Your task to perform on an android device: open chrome and create a bookmark for the current page Image 0: 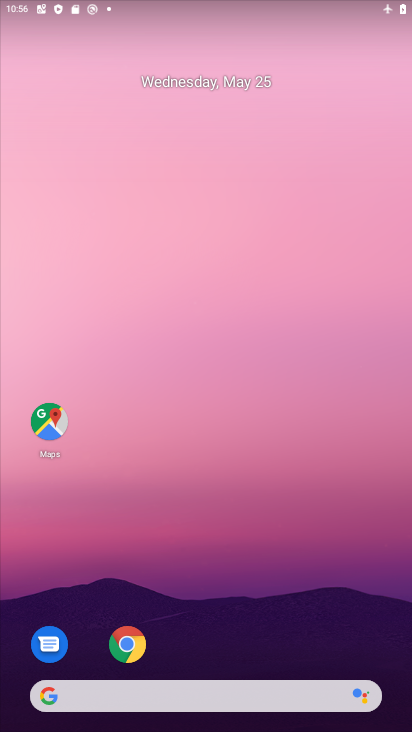
Step 0: click (128, 652)
Your task to perform on an android device: open chrome and create a bookmark for the current page Image 1: 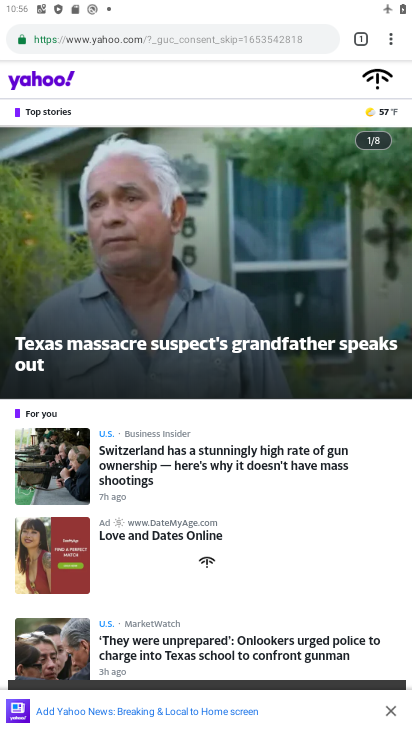
Step 1: click (384, 42)
Your task to perform on an android device: open chrome and create a bookmark for the current page Image 2: 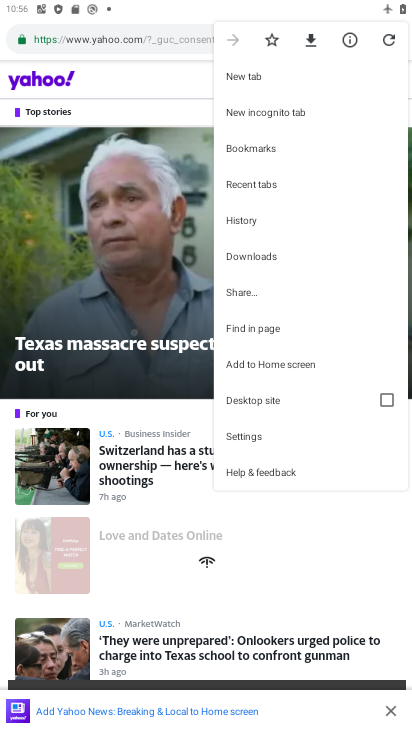
Step 2: click (270, 42)
Your task to perform on an android device: open chrome and create a bookmark for the current page Image 3: 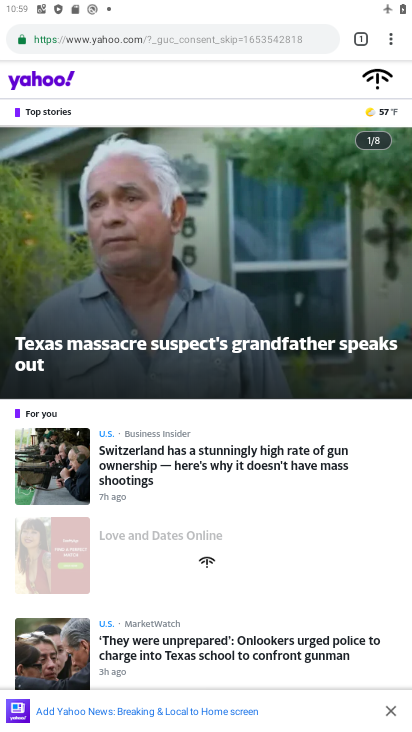
Step 3: task complete